Your task to perform on an android device: toggle show notifications on the lock screen Image 0: 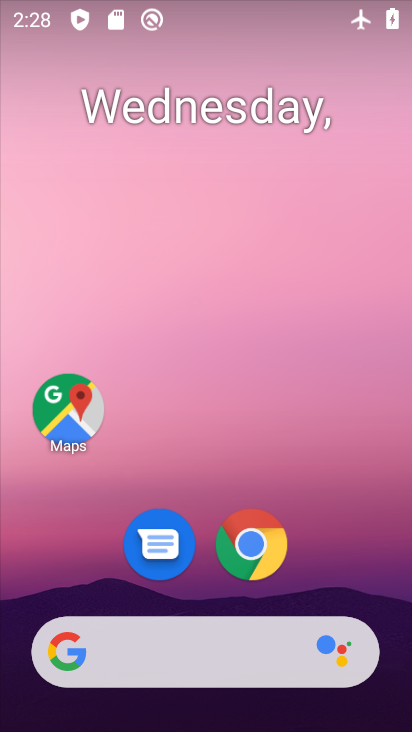
Step 0: drag from (67, 619) to (158, 179)
Your task to perform on an android device: toggle show notifications on the lock screen Image 1: 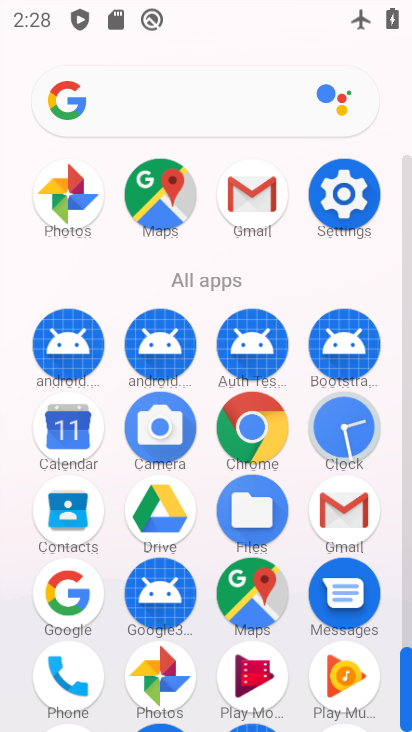
Step 1: drag from (165, 614) to (214, 382)
Your task to perform on an android device: toggle show notifications on the lock screen Image 2: 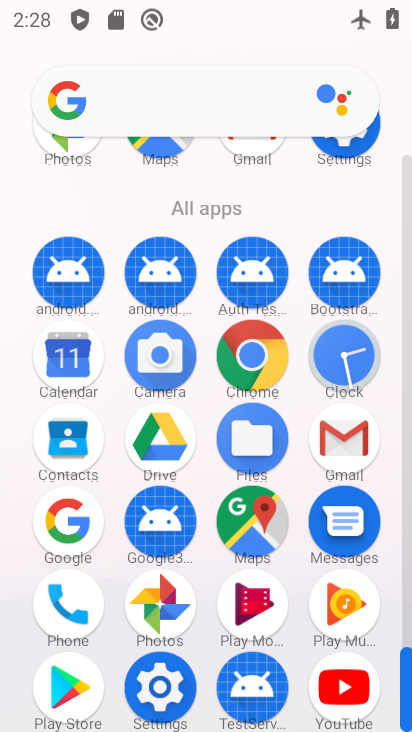
Step 2: click (149, 673)
Your task to perform on an android device: toggle show notifications on the lock screen Image 3: 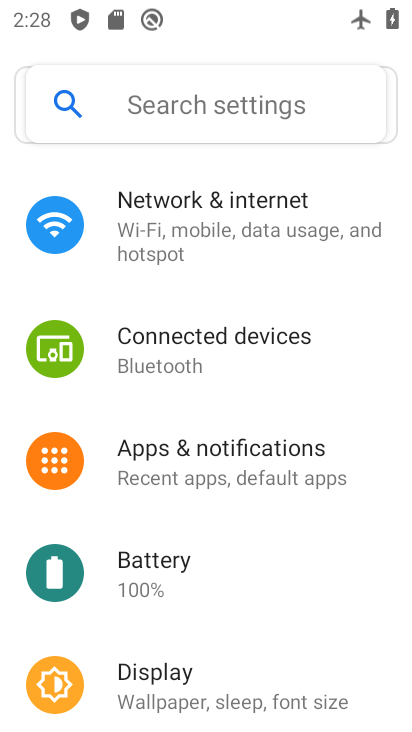
Step 3: click (258, 459)
Your task to perform on an android device: toggle show notifications on the lock screen Image 4: 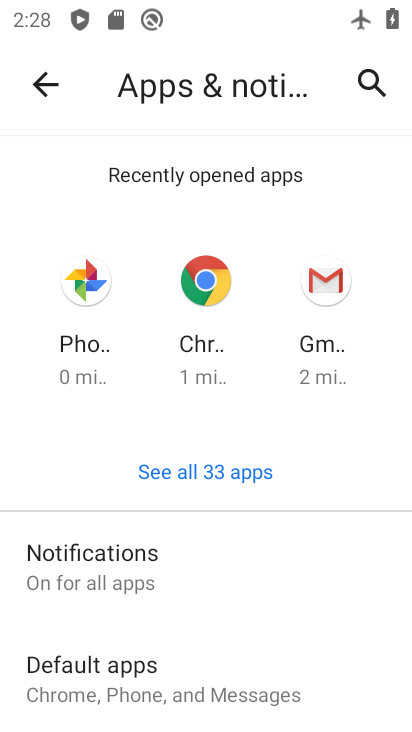
Step 4: drag from (144, 649) to (244, 328)
Your task to perform on an android device: toggle show notifications on the lock screen Image 5: 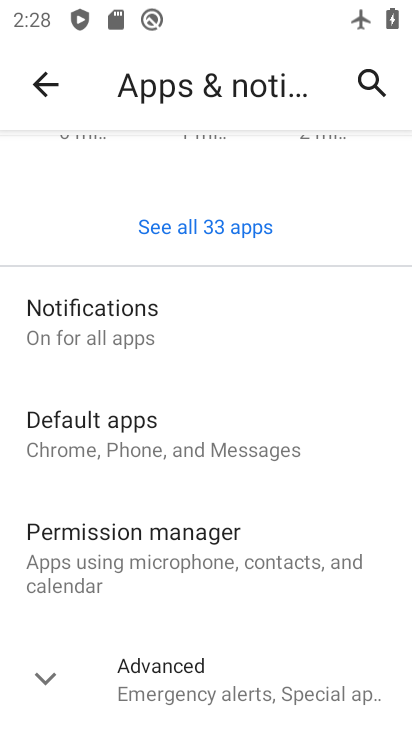
Step 5: click (235, 342)
Your task to perform on an android device: toggle show notifications on the lock screen Image 6: 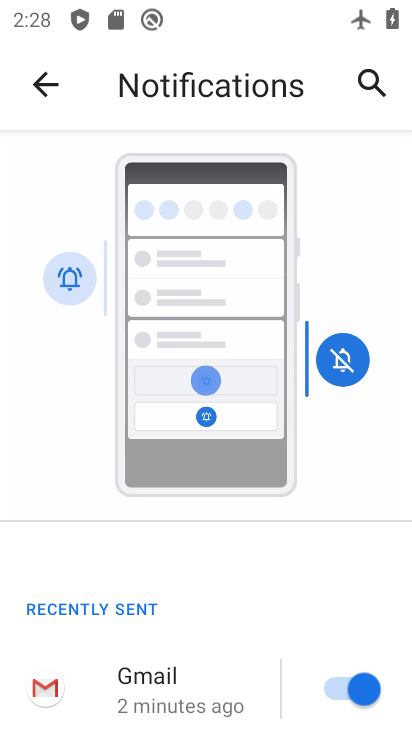
Step 6: drag from (175, 550) to (262, 251)
Your task to perform on an android device: toggle show notifications on the lock screen Image 7: 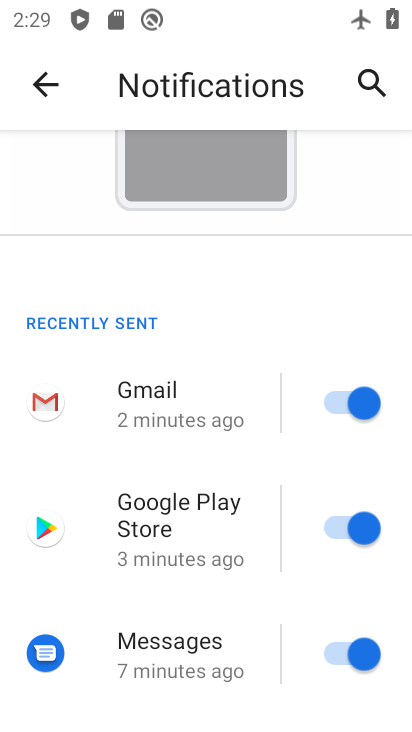
Step 7: drag from (193, 616) to (279, 362)
Your task to perform on an android device: toggle show notifications on the lock screen Image 8: 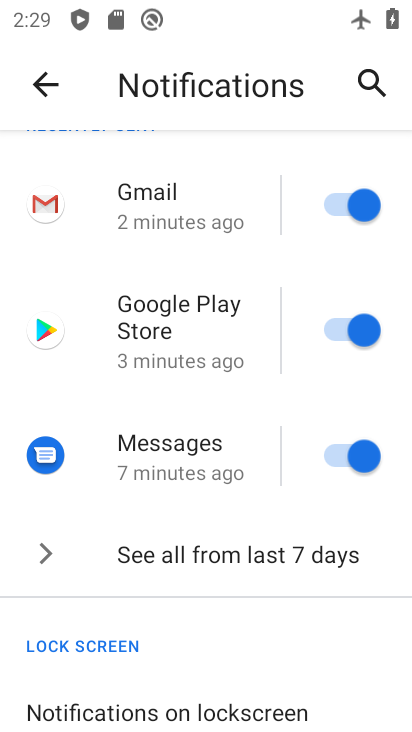
Step 8: click (236, 696)
Your task to perform on an android device: toggle show notifications on the lock screen Image 9: 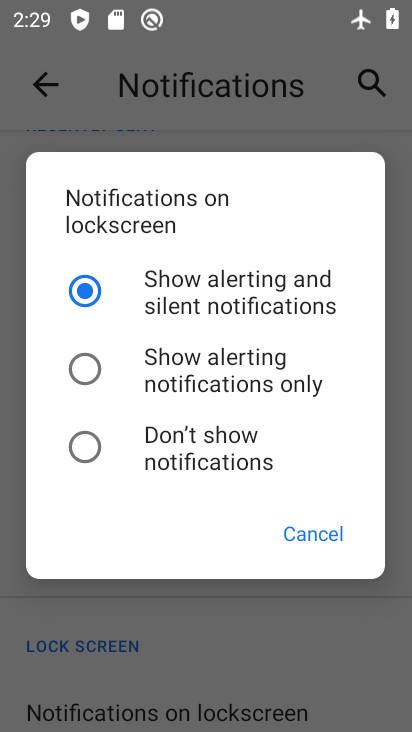
Step 9: click (257, 456)
Your task to perform on an android device: toggle show notifications on the lock screen Image 10: 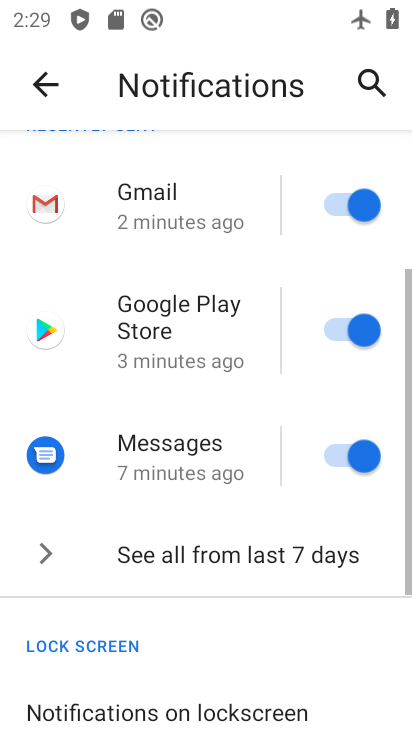
Step 10: task complete